Your task to perform on an android device: What is the news today? Image 0: 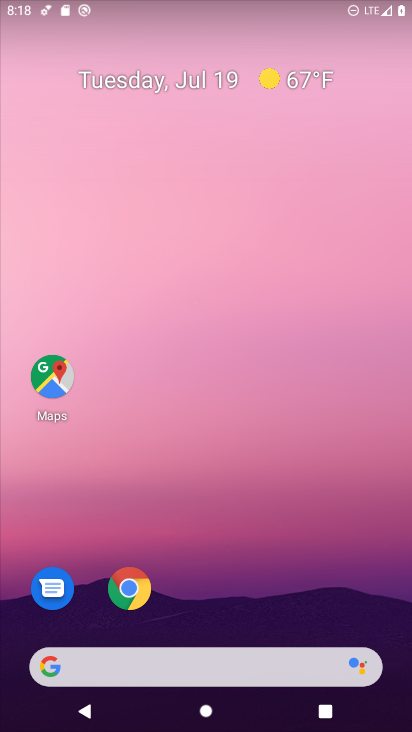
Step 0: drag from (9, 255) to (396, 296)
Your task to perform on an android device: What is the news today? Image 1: 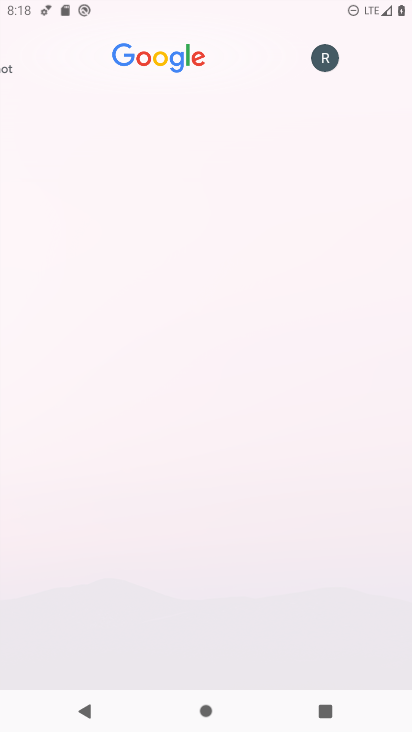
Step 1: task complete